Your task to perform on an android device: Find coffee shops on Maps Image 0: 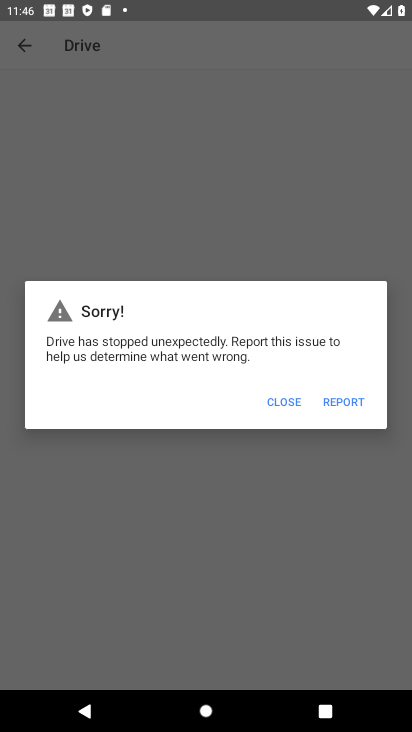
Step 0: press home button
Your task to perform on an android device: Find coffee shops on Maps Image 1: 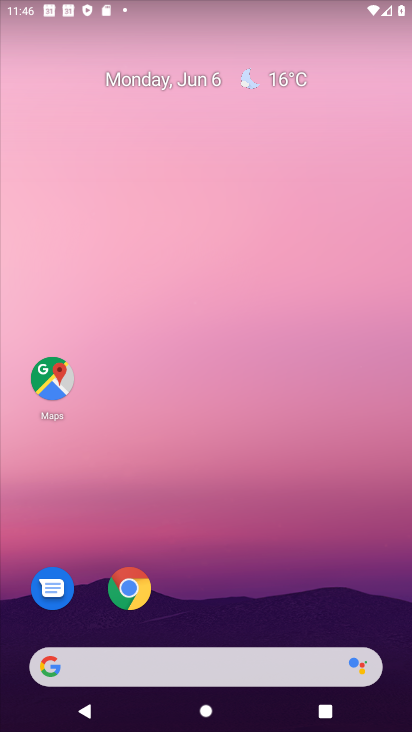
Step 1: click (49, 379)
Your task to perform on an android device: Find coffee shops on Maps Image 2: 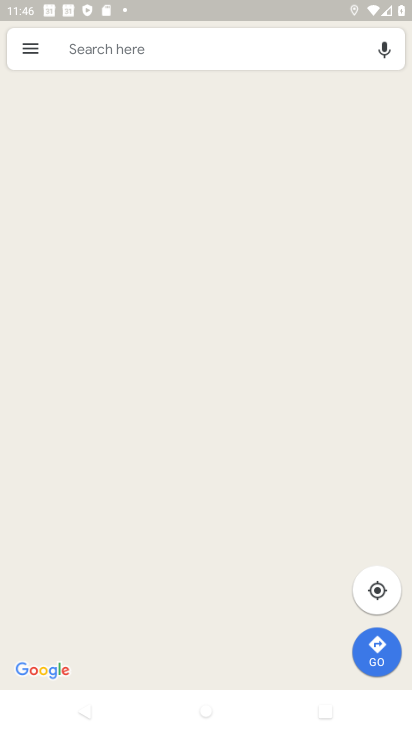
Step 2: click (207, 50)
Your task to perform on an android device: Find coffee shops on Maps Image 3: 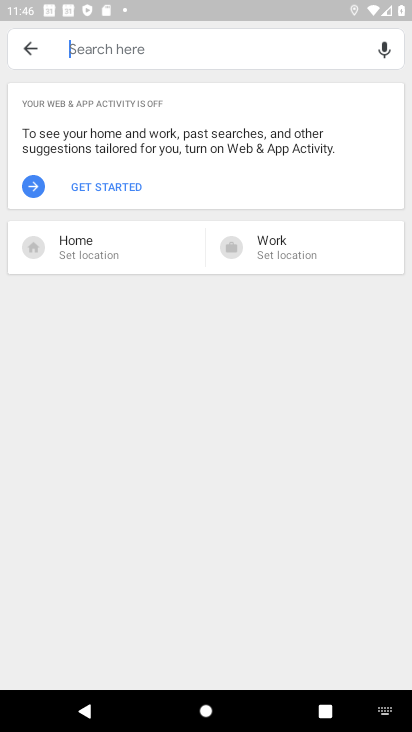
Step 3: type "coffee shops"
Your task to perform on an android device: Find coffee shops on Maps Image 4: 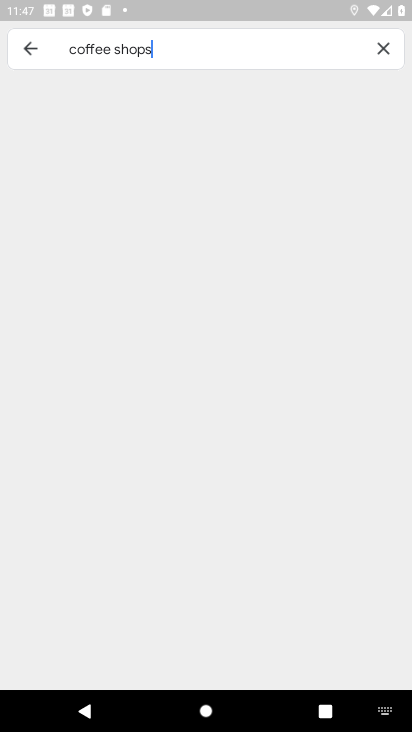
Step 4: click (34, 46)
Your task to perform on an android device: Find coffee shops on Maps Image 5: 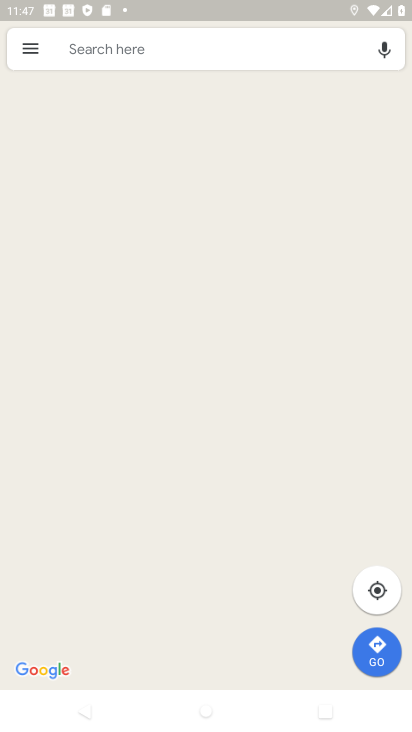
Step 5: press back button
Your task to perform on an android device: Find coffee shops on Maps Image 6: 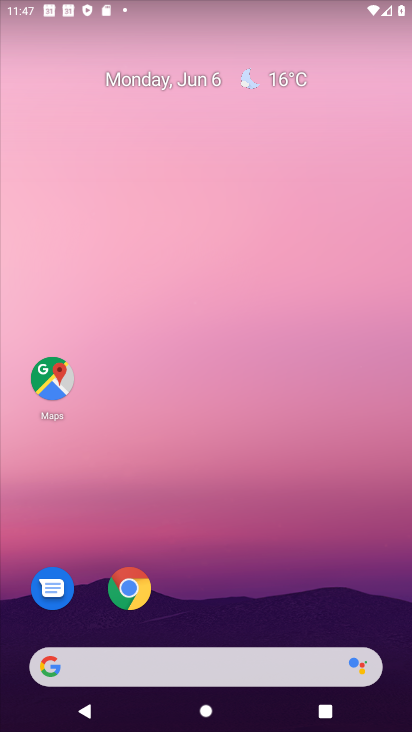
Step 6: click (53, 382)
Your task to perform on an android device: Find coffee shops on Maps Image 7: 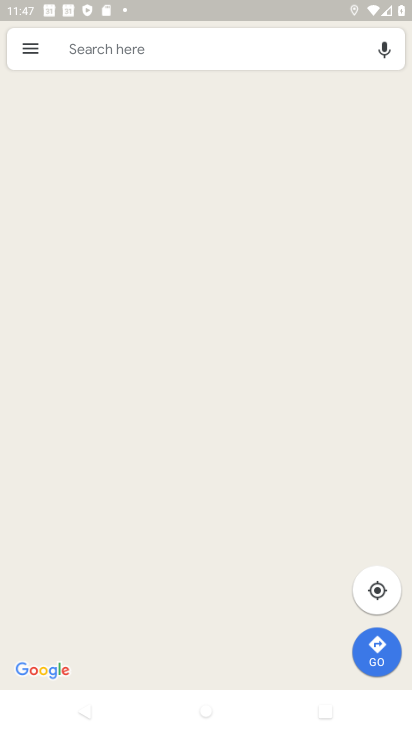
Step 7: click (208, 58)
Your task to perform on an android device: Find coffee shops on Maps Image 8: 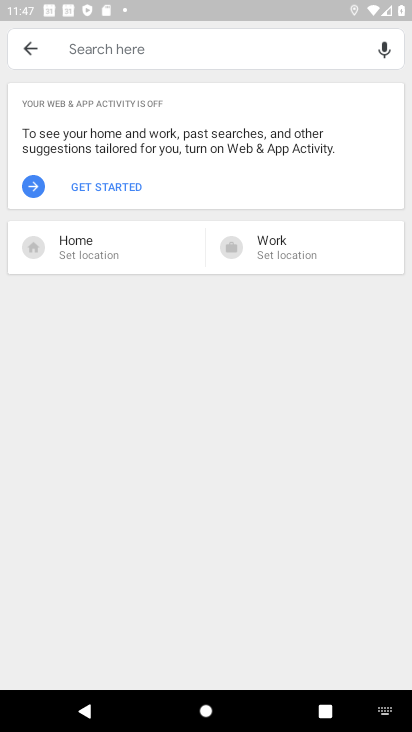
Step 8: click (102, 252)
Your task to perform on an android device: Find coffee shops on Maps Image 9: 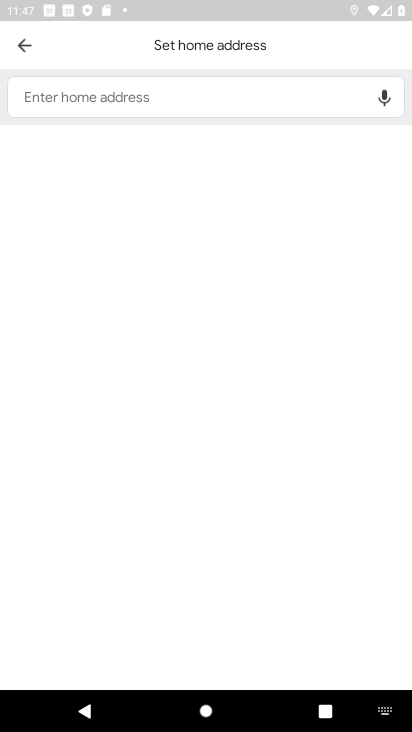
Step 9: click (21, 49)
Your task to perform on an android device: Find coffee shops on Maps Image 10: 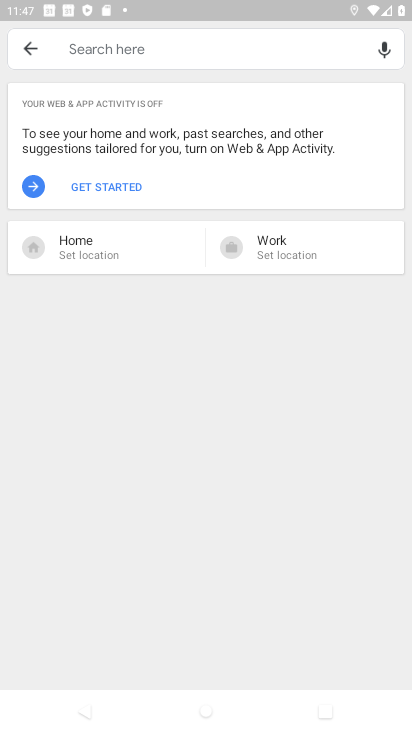
Step 10: click (79, 43)
Your task to perform on an android device: Find coffee shops on Maps Image 11: 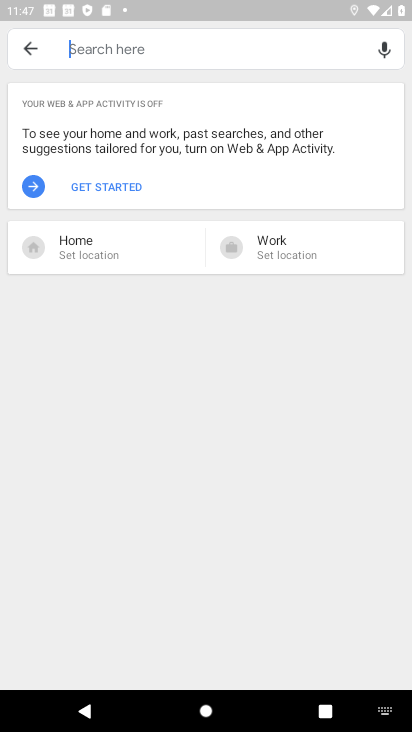
Step 11: type "coffee shops"
Your task to perform on an android device: Find coffee shops on Maps Image 12: 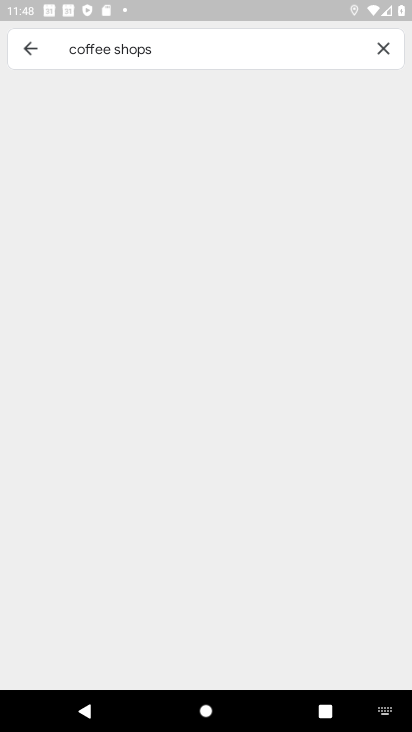
Step 12: task complete